Your task to perform on an android device: Search for Mexican restaurants on Maps Image 0: 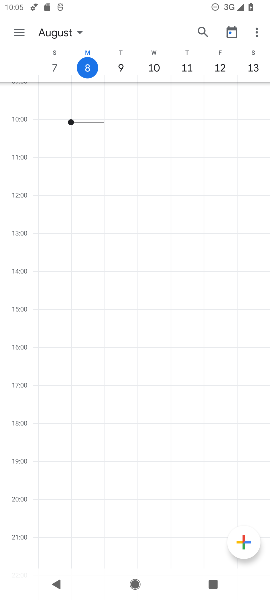
Step 0: press home button
Your task to perform on an android device: Search for Mexican restaurants on Maps Image 1: 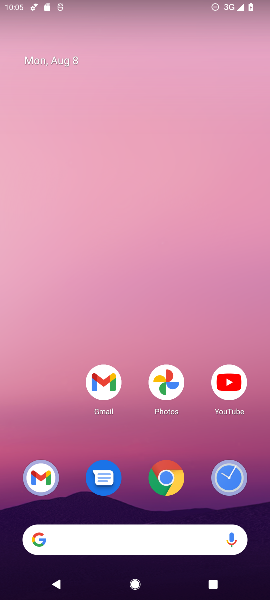
Step 1: drag from (138, 513) to (112, 39)
Your task to perform on an android device: Search for Mexican restaurants on Maps Image 2: 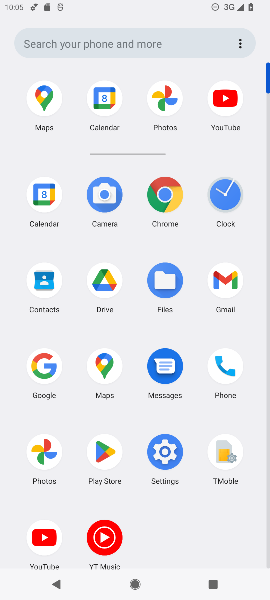
Step 2: click (97, 376)
Your task to perform on an android device: Search for Mexican restaurants on Maps Image 3: 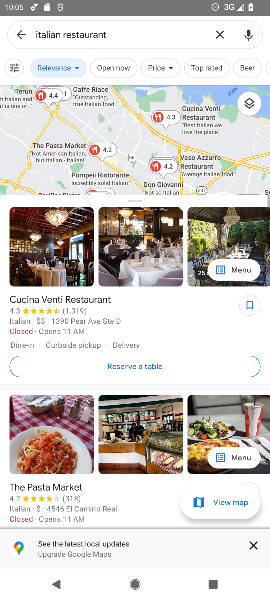
Step 3: click (220, 33)
Your task to perform on an android device: Search for Mexican restaurants on Maps Image 4: 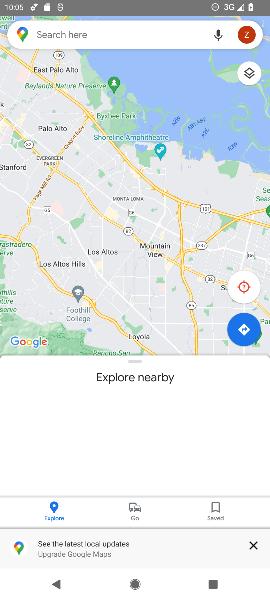
Step 4: click (102, 37)
Your task to perform on an android device: Search for Mexican restaurants on Maps Image 5: 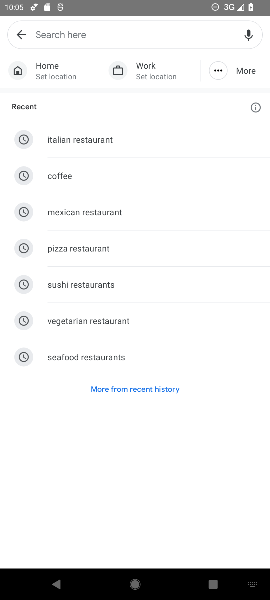
Step 5: click (64, 205)
Your task to perform on an android device: Search for Mexican restaurants on Maps Image 6: 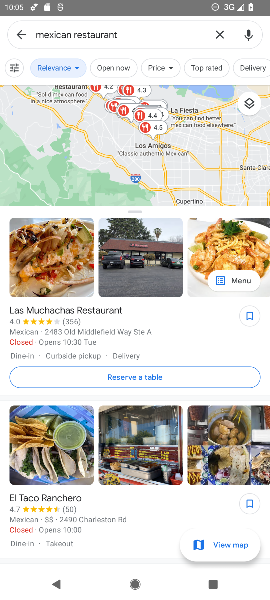
Step 6: task complete